Your task to perform on an android device: turn on the 24-hour format for clock Image 0: 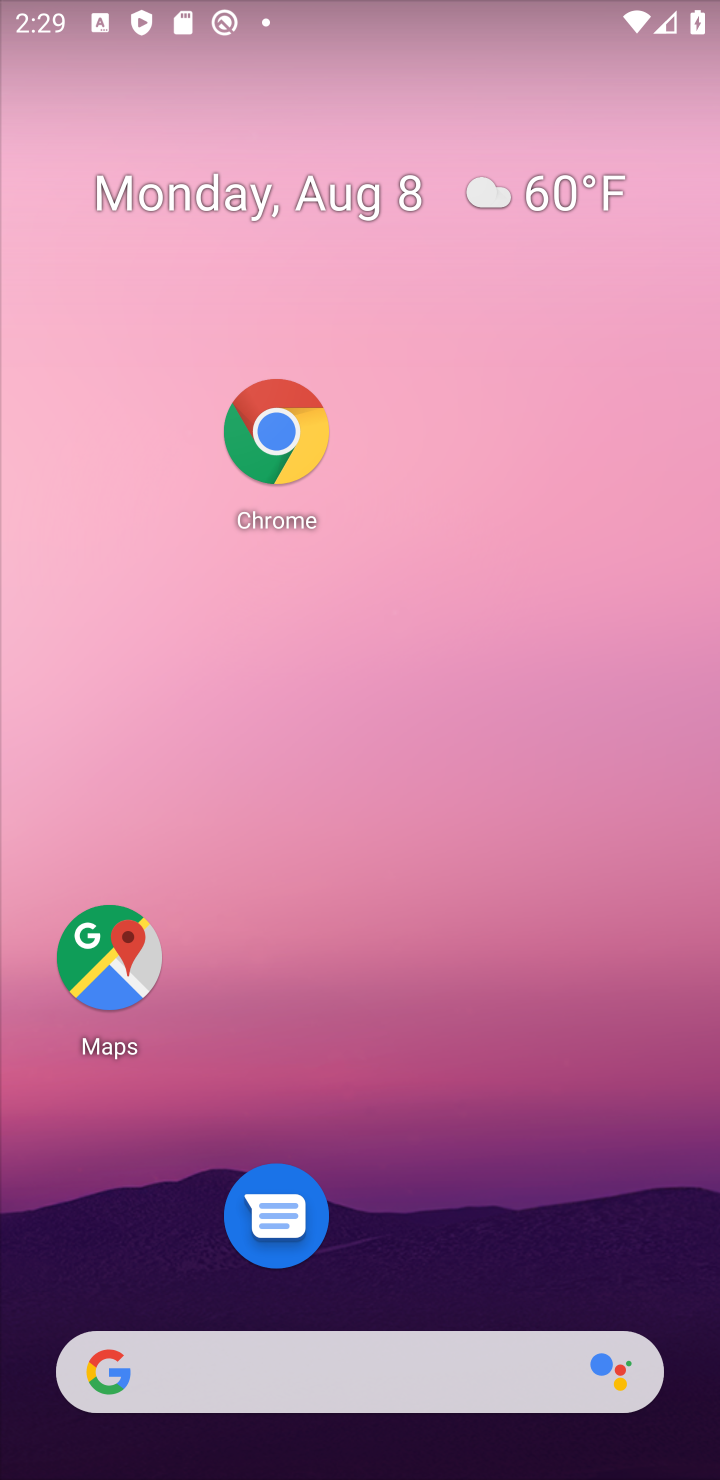
Step 0: drag from (450, 1229) to (318, 285)
Your task to perform on an android device: turn on the 24-hour format for clock Image 1: 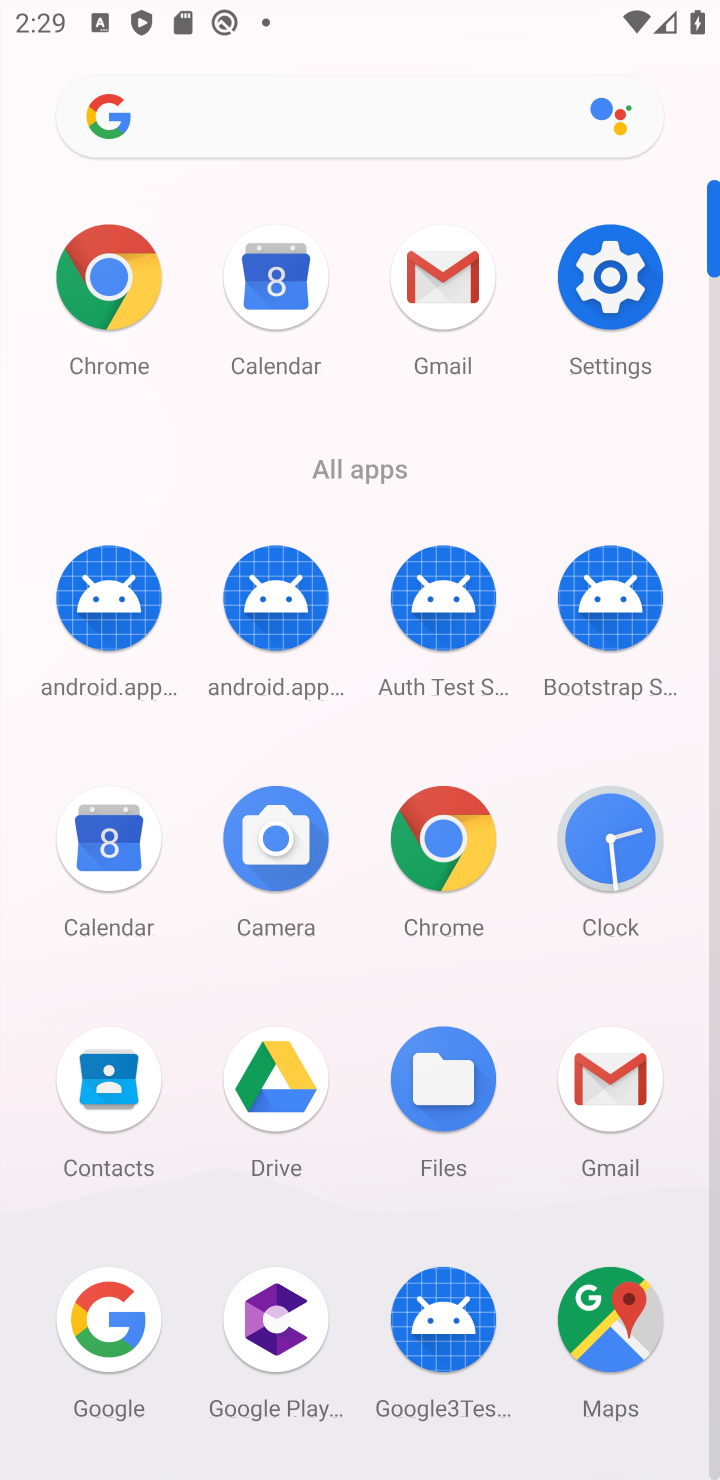
Step 1: click (615, 880)
Your task to perform on an android device: turn on the 24-hour format for clock Image 2: 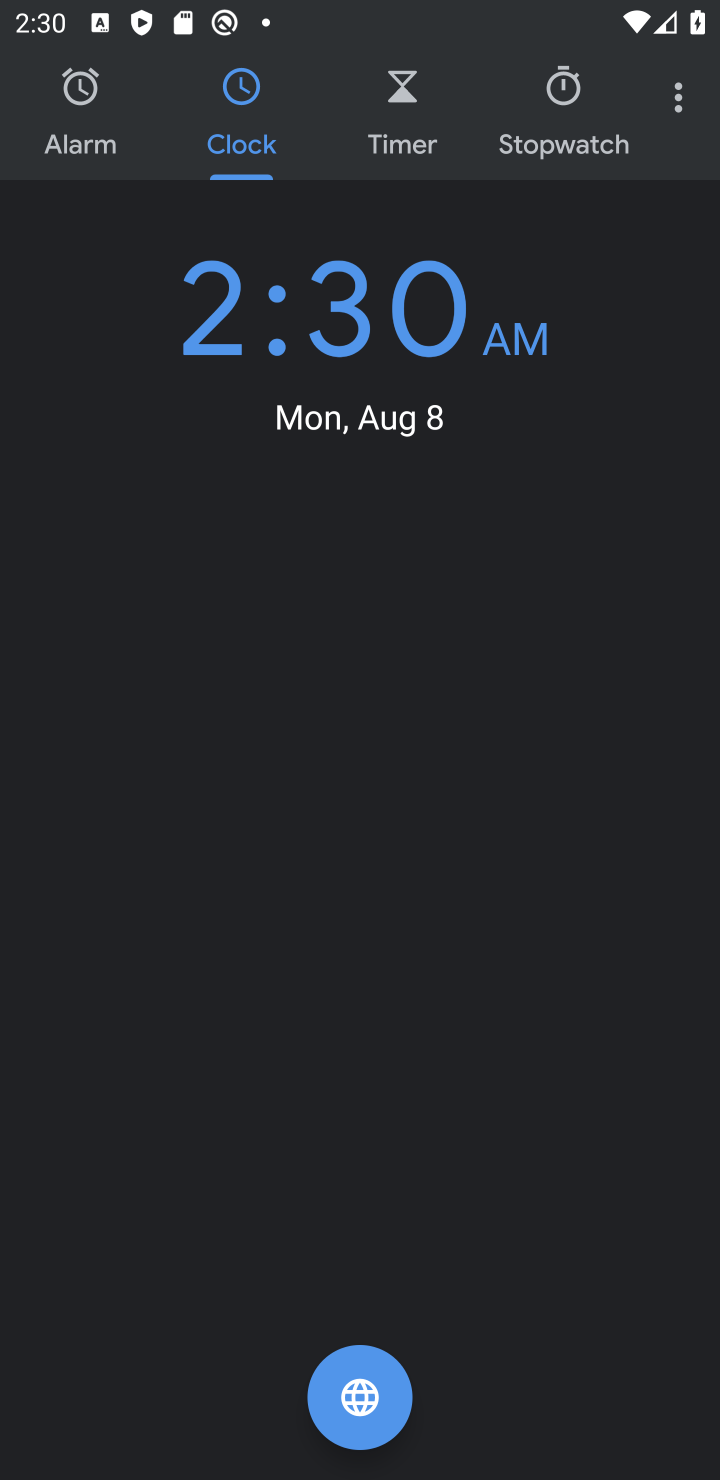
Step 2: click (680, 110)
Your task to perform on an android device: turn on the 24-hour format for clock Image 3: 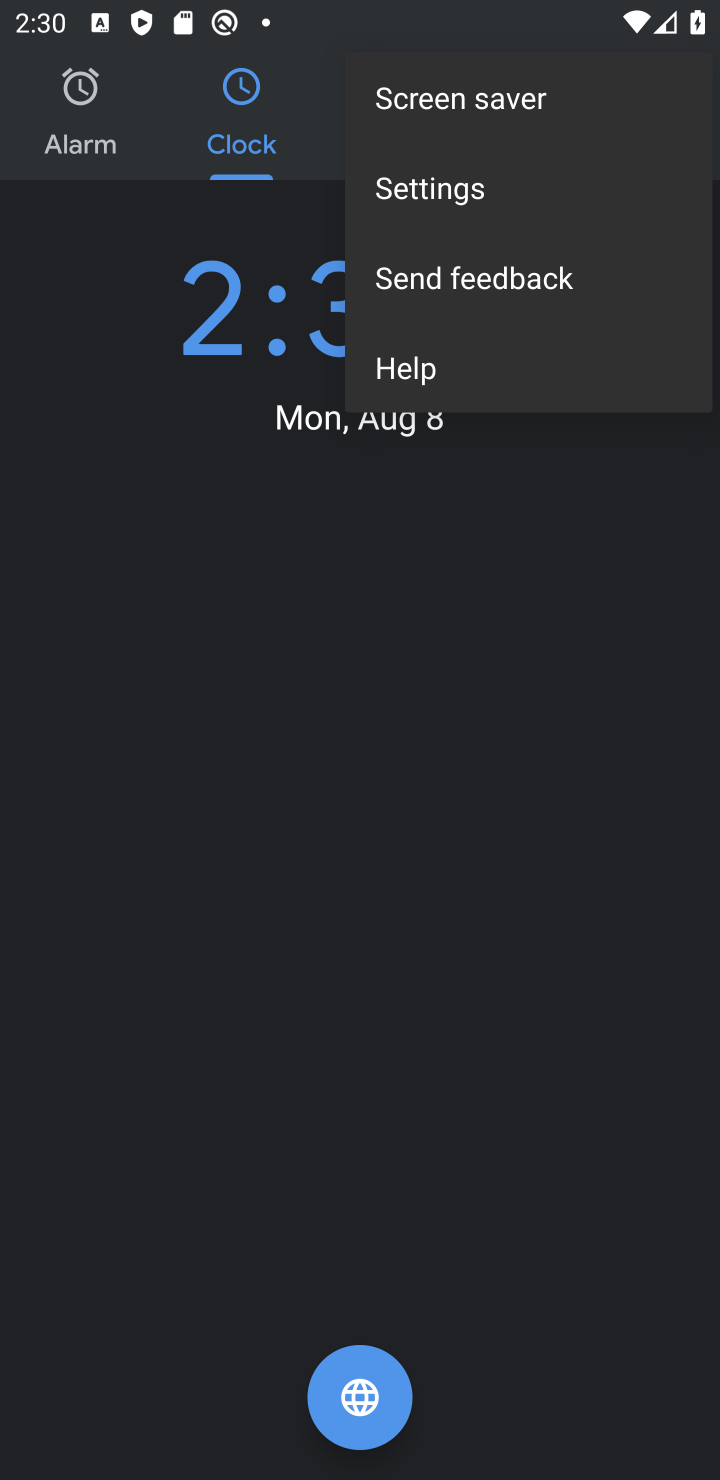
Step 3: click (403, 201)
Your task to perform on an android device: turn on the 24-hour format for clock Image 4: 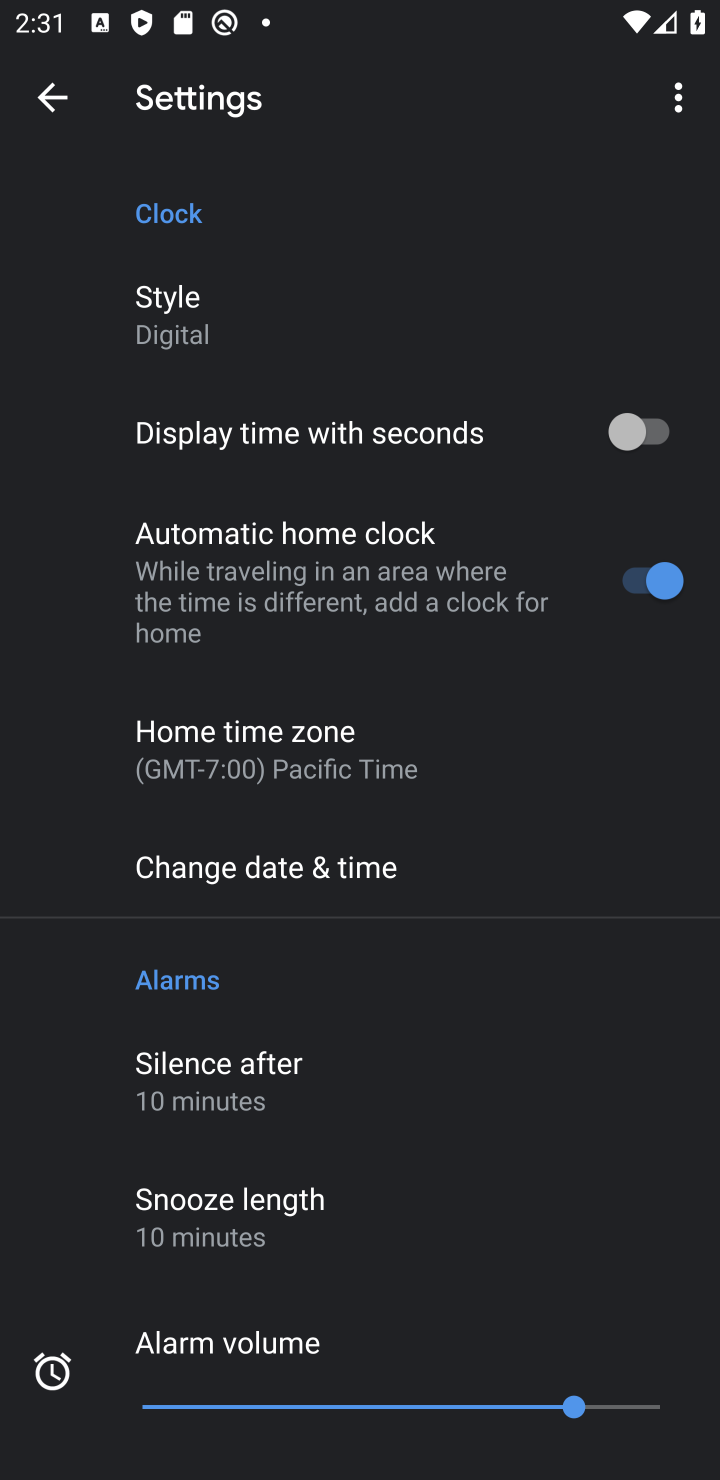
Step 4: click (286, 860)
Your task to perform on an android device: turn on the 24-hour format for clock Image 5: 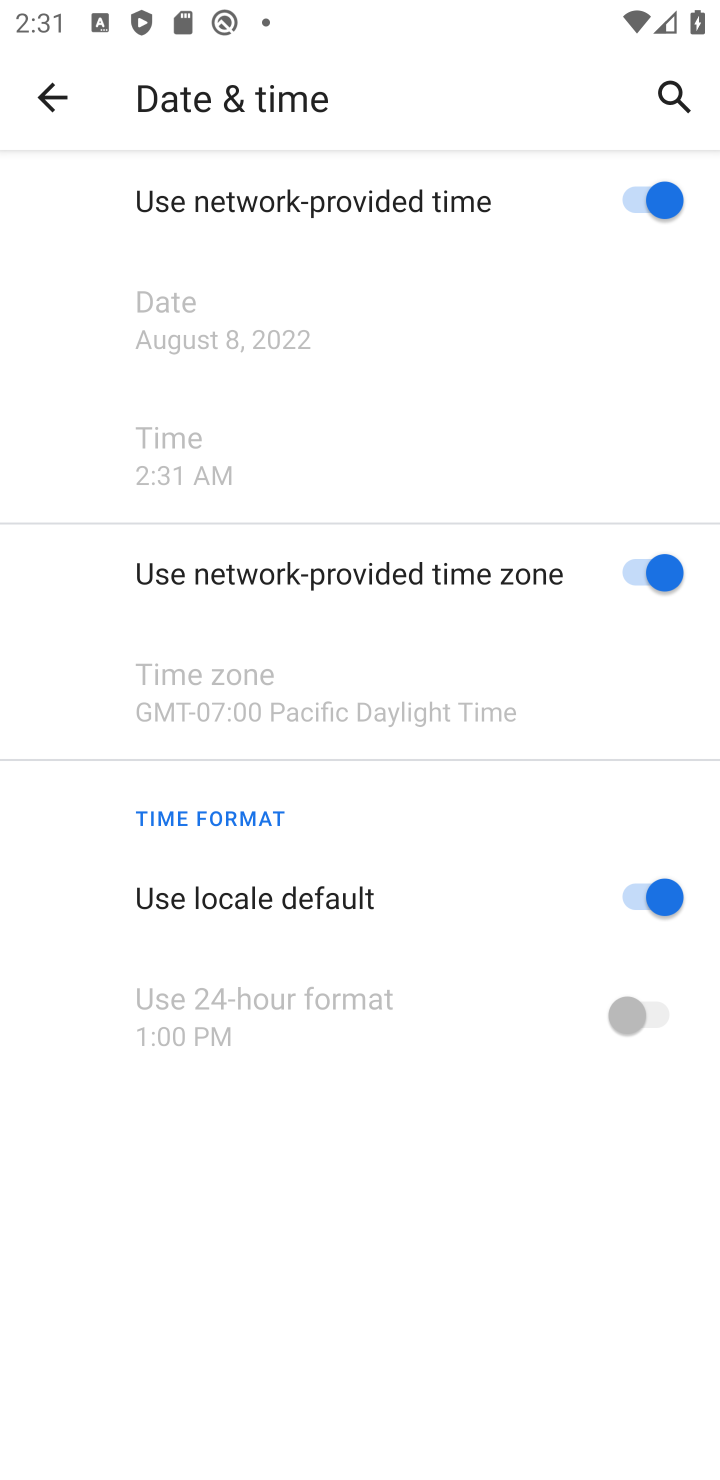
Step 5: task complete